Your task to perform on an android device: toggle translation in the chrome app Image 0: 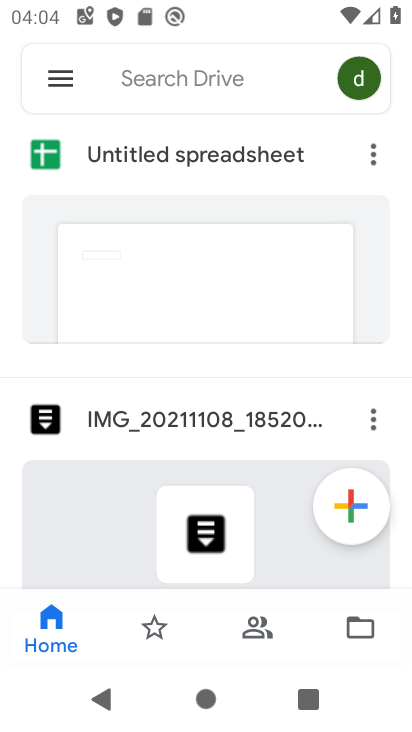
Step 0: press home button
Your task to perform on an android device: toggle translation in the chrome app Image 1: 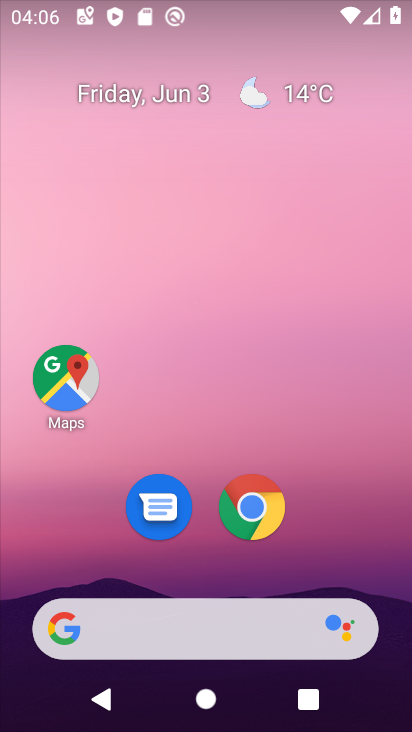
Step 1: click (260, 513)
Your task to perform on an android device: toggle translation in the chrome app Image 2: 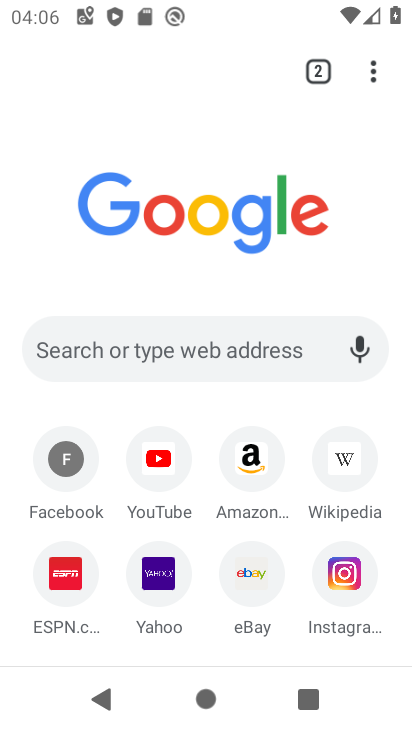
Step 2: drag from (370, 66) to (219, 511)
Your task to perform on an android device: toggle translation in the chrome app Image 3: 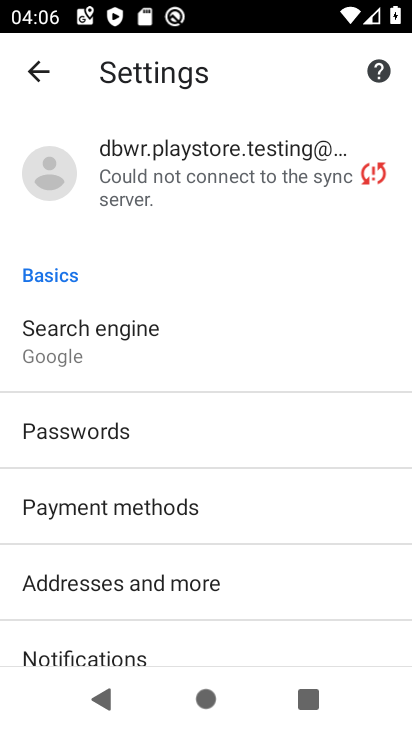
Step 3: drag from (323, 636) to (335, 215)
Your task to perform on an android device: toggle translation in the chrome app Image 4: 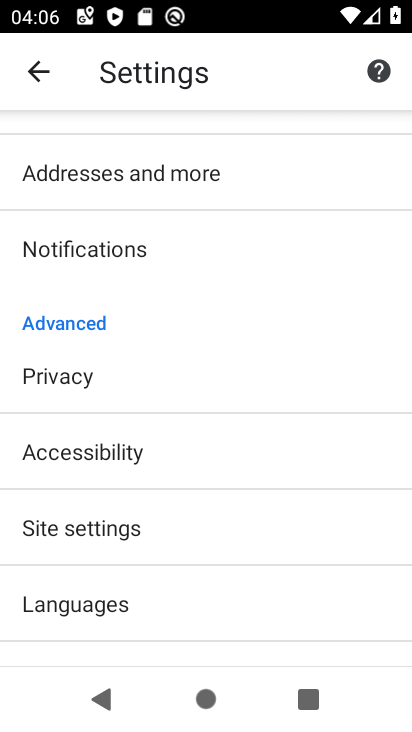
Step 4: click (85, 605)
Your task to perform on an android device: toggle translation in the chrome app Image 5: 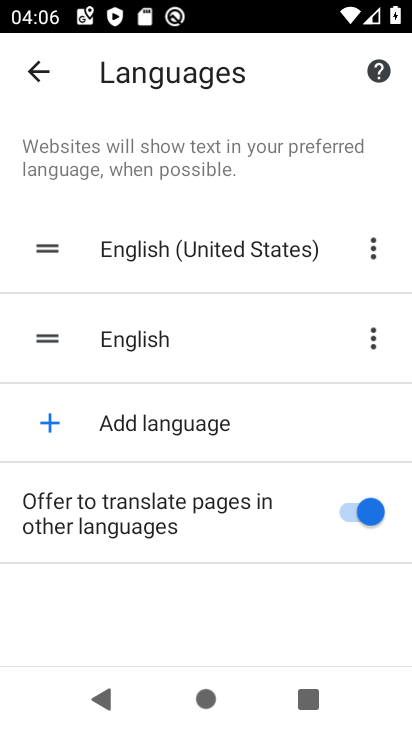
Step 5: click (367, 504)
Your task to perform on an android device: toggle translation in the chrome app Image 6: 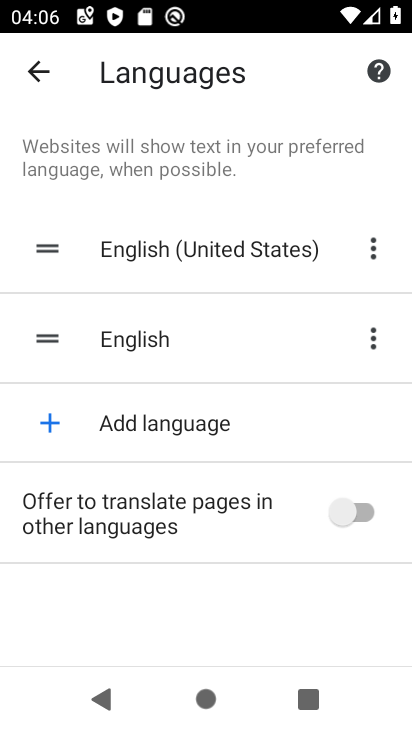
Step 6: task complete